Your task to perform on an android device: change the clock display to show seconds Image 0: 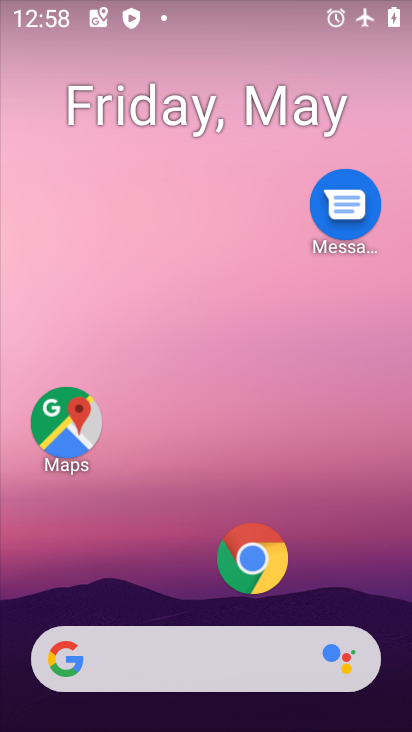
Step 0: drag from (155, 628) to (141, 168)
Your task to perform on an android device: change the clock display to show seconds Image 1: 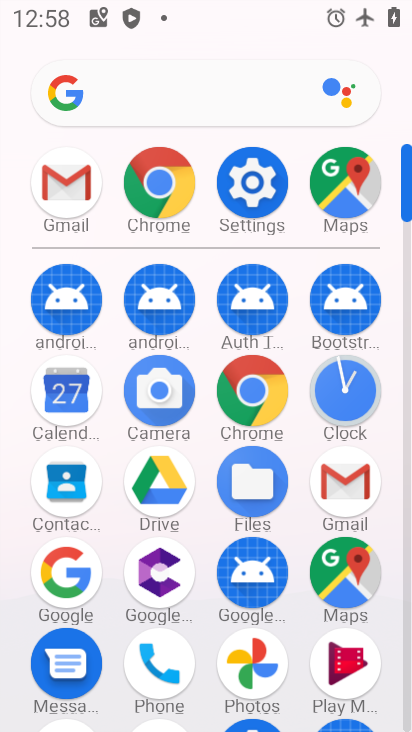
Step 1: click (353, 390)
Your task to perform on an android device: change the clock display to show seconds Image 2: 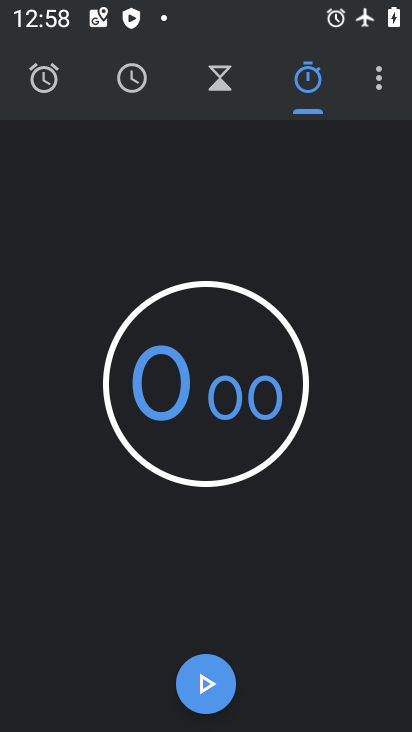
Step 2: click (381, 75)
Your task to perform on an android device: change the clock display to show seconds Image 3: 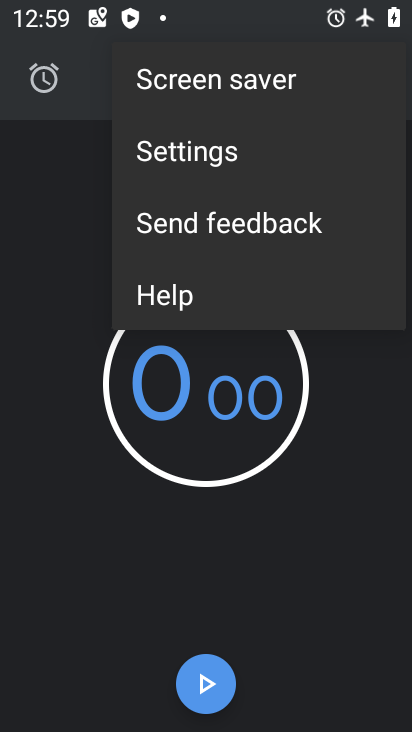
Step 3: click (202, 166)
Your task to perform on an android device: change the clock display to show seconds Image 4: 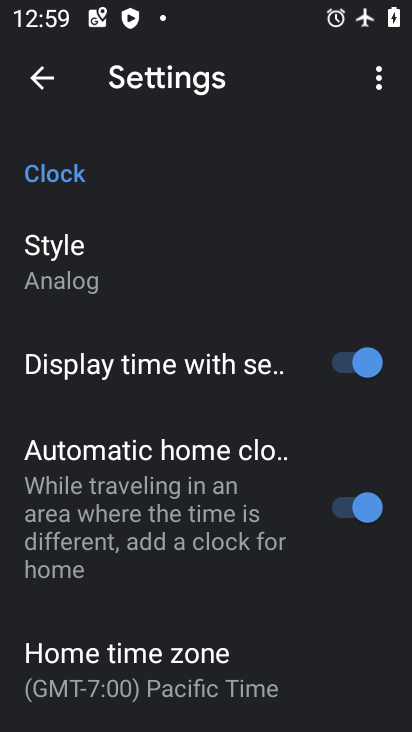
Step 4: task complete